Your task to perform on an android device: toggle priority inbox in the gmail app Image 0: 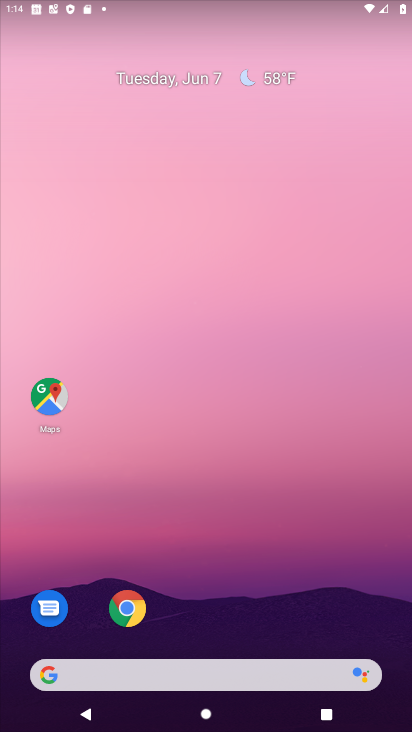
Step 0: drag from (267, 606) to (306, 4)
Your task to perform on an android device: toggle priority inbox in the gmail app Image 1: 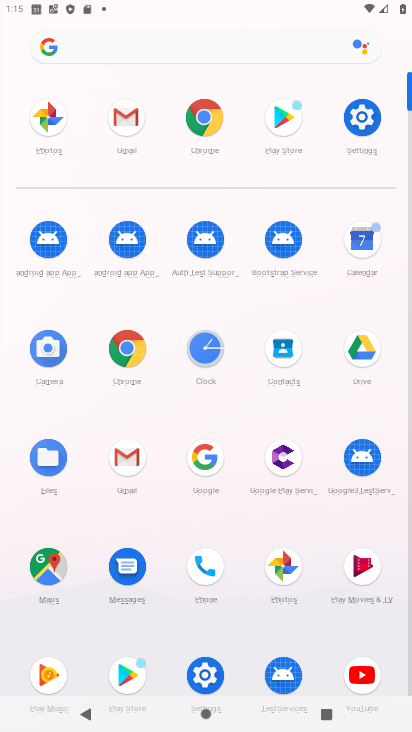
Step 1: click (117, 117)
Your task to perform on an android device: toggle priority inbox in the gmail app Image 2: 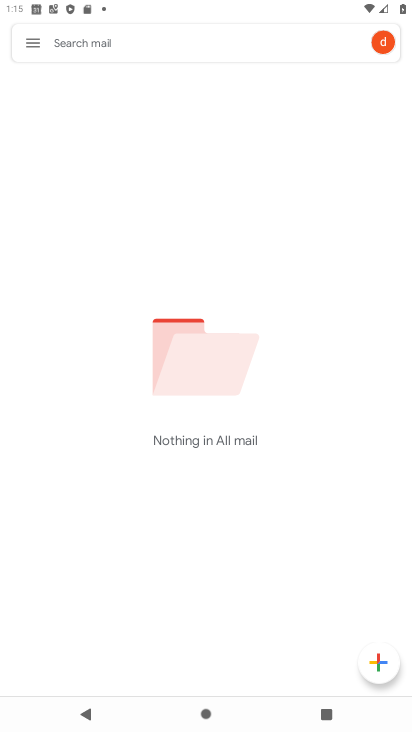
Step 2: click (12, 31)
Your task to perform on an android device: toggle priority inbox in the gmail app Image 3: 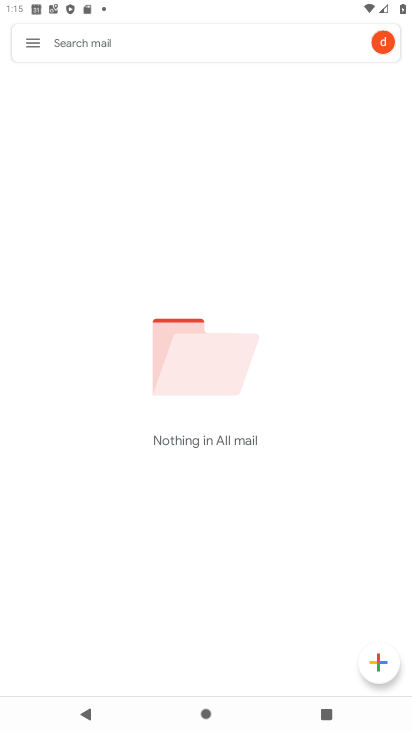
Step 3: click (39, 44)
Your task to perform on an android device: toggle priority inbox in the gmail app Image 4: 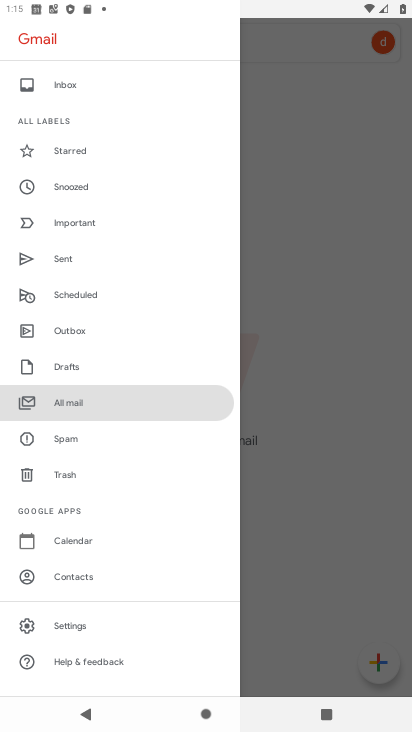
Step 4: click (91, 623)
Your task to perform on an android device: toggle priority inbox in the gmail app Image 5: 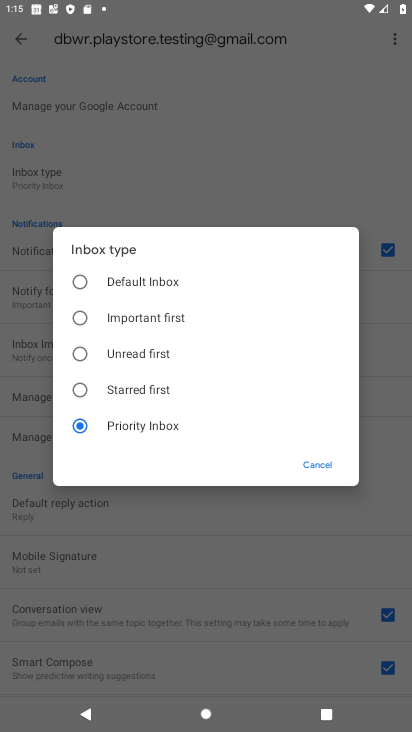
Step 5: click (120, 276)
Your task to perform on an android device: toggle priority inbox in the gmail app Image 6: 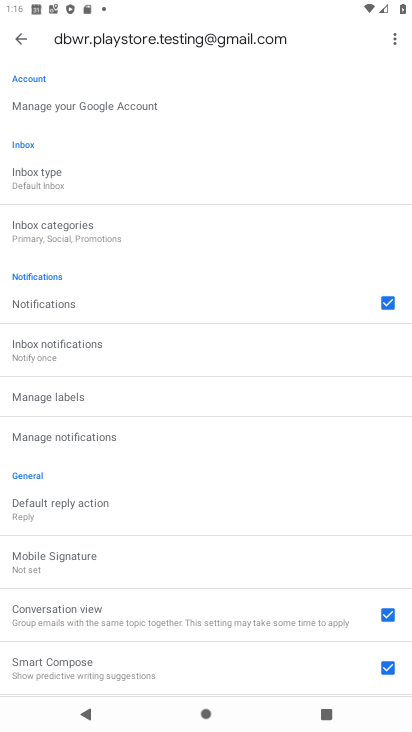
Step 6: task complete